Your task to perform on an android device: Turn on the flashlight Image 0: 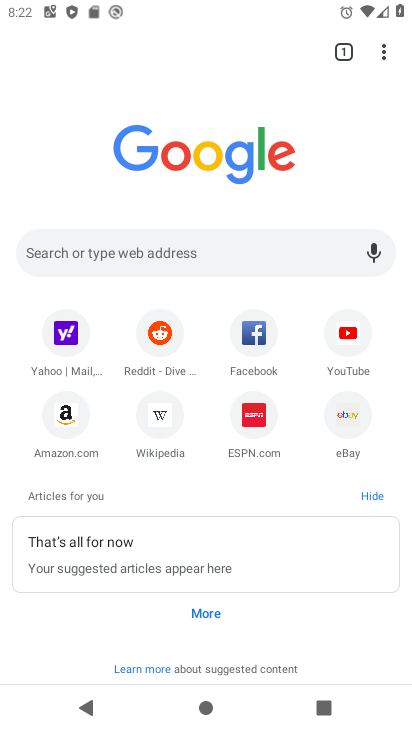
Step 0: press home button
Your task to perform on an android device: Turn on the flashlight Image 1: 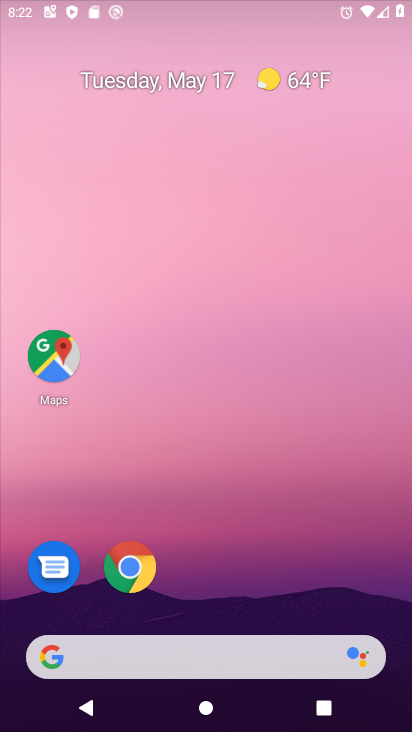
Step 1: drag from (370, 609) to (227, 47)
Your task to perform on an android device: Turn on the flashlight Image 2: 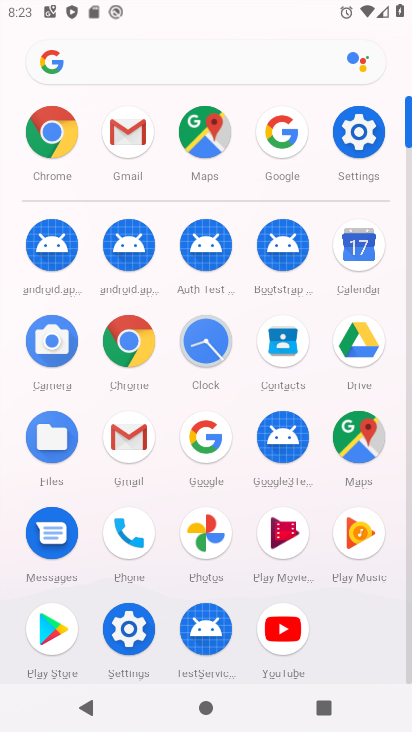
Step 2: click (341, 131)
Your task to perform on an android device: Turn on the flashlight Image 3: 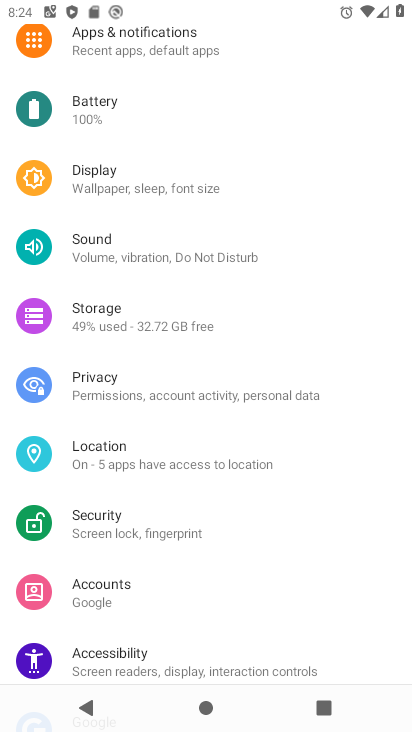
Step 3: task complete